Your task to perform on an android device: change keyboard looks Image 0: 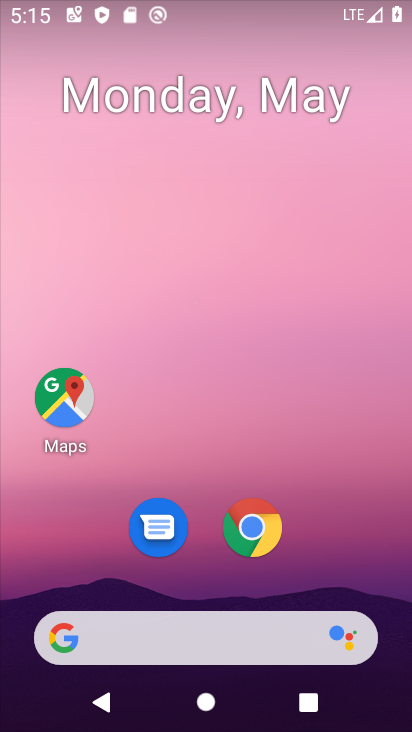
Step 0: click (408, 272)
Your task to perform on an android device: change keyboard looks Image 1: 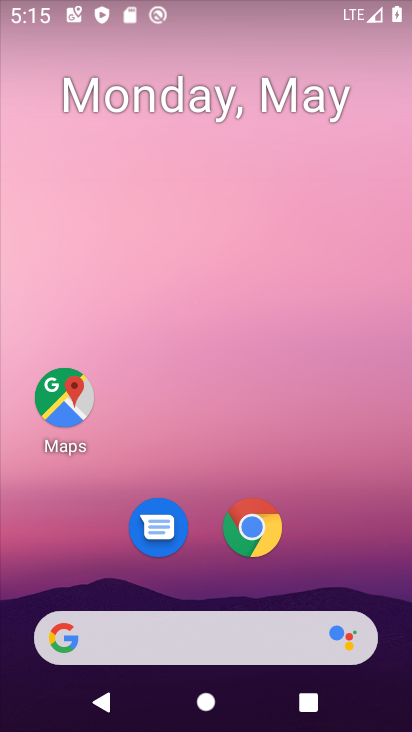
Step 1: drag from (401, 669) to (356, 171)
Your task to perform on an android device: change keyboard looks Image 2: 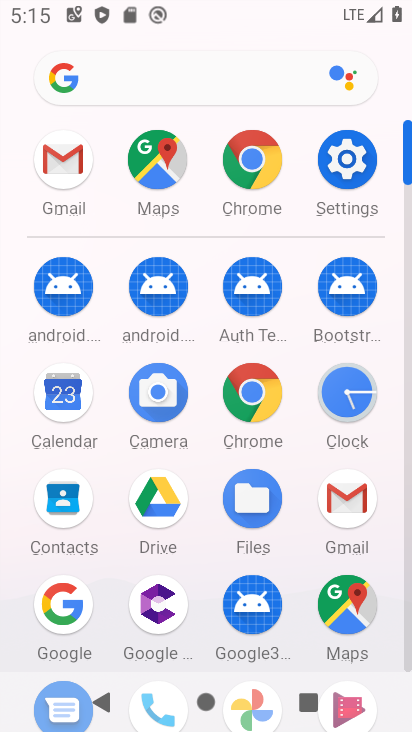
Step 2: click (346, 151)
Your task to perform on an android device: change keyboard looks Image 3: 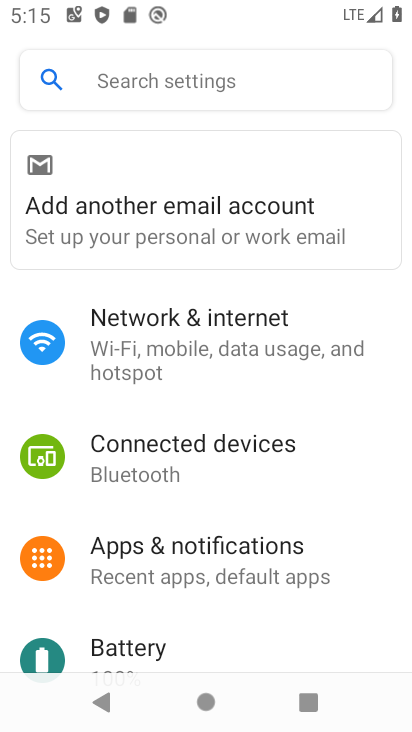
Step 3: drag from (340, 637) to (321, 296)
Your task to perform on an android device: change keyboard looks Image 4: 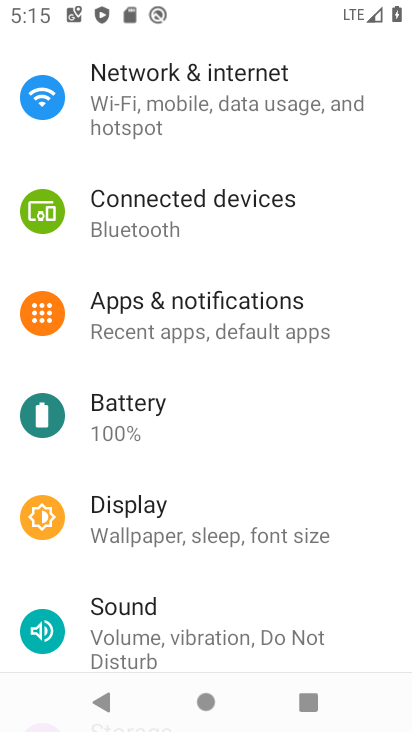
Step 4: drag from (355, 614) to (338, 275)
Your task to perform on an android device: change keyboard looks Image 5: 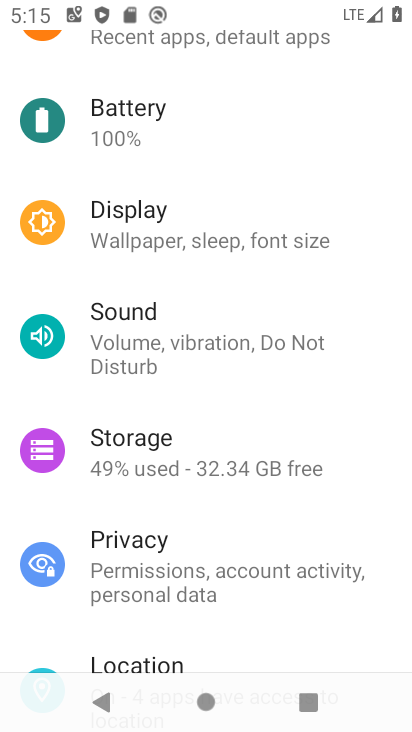
Step 5: drag from (325, 652) to (319, 221)
Your task to perform on an android device: change keyboard looks Image 6: 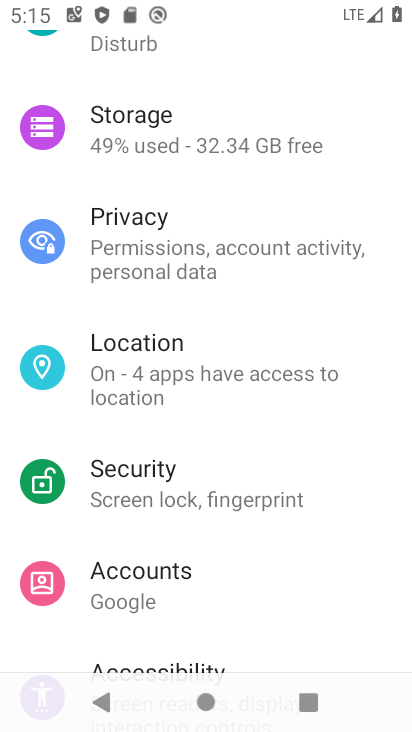
Step 6: drag from (293, 633) to (286, 318)
Your task to perform on an android device: change keyboard looks Image 7: 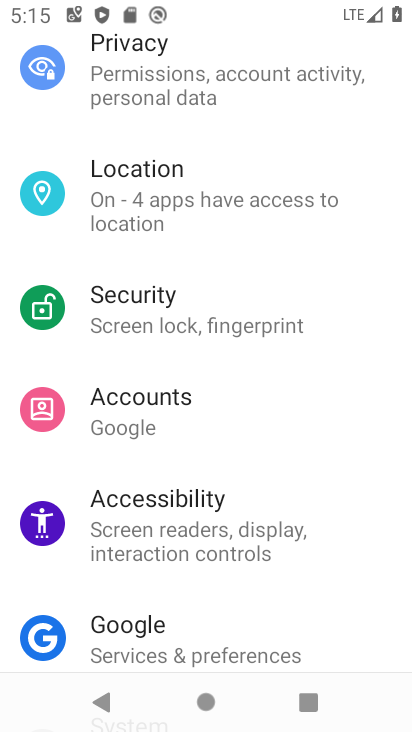
Step 7: drag from (310, 635) to (325, 348)
Your task to perform on an android device: change keyboard looks Image 8: 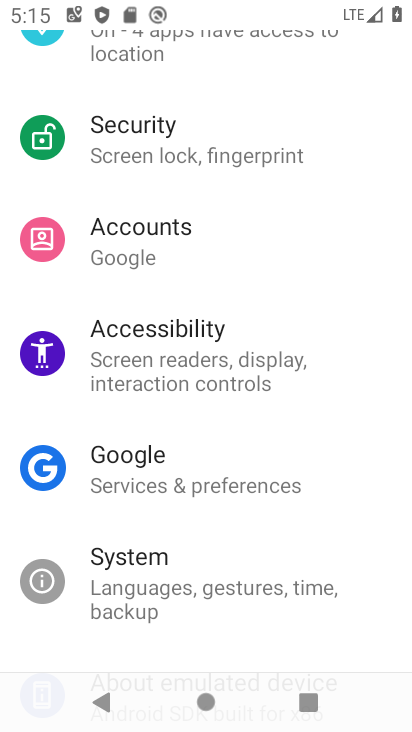
Step 8: click (133, 598)
Your task to perform on an android device: change keyboard looks Image 9: 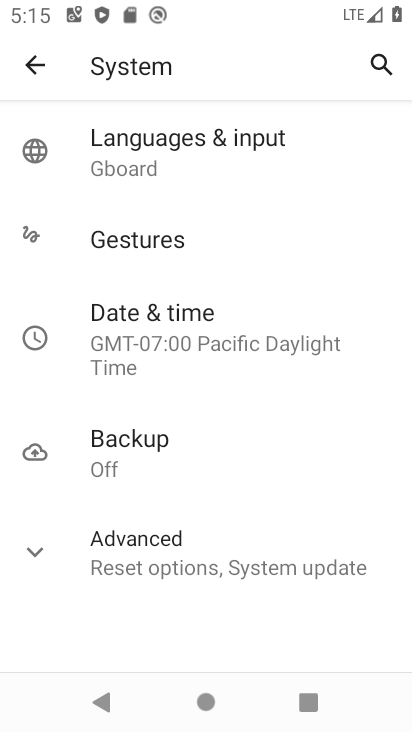
Step 9: click (150, 151)
Your task to perform on an android device: change keyboard looks Image 10: 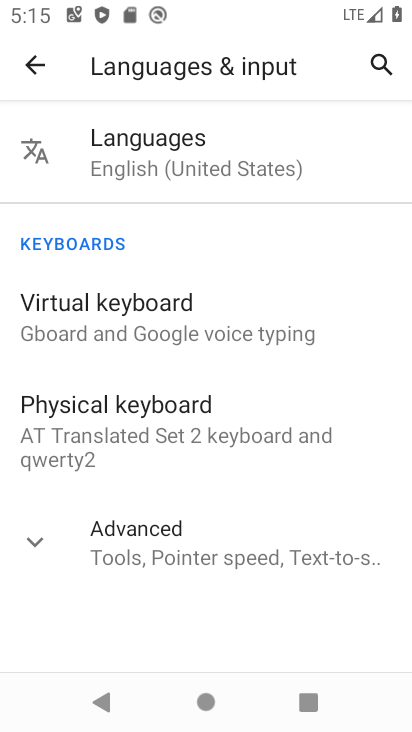
Step 10: click (102, 302)
Your task to perform on an android device: change keyboard looks Image 11: 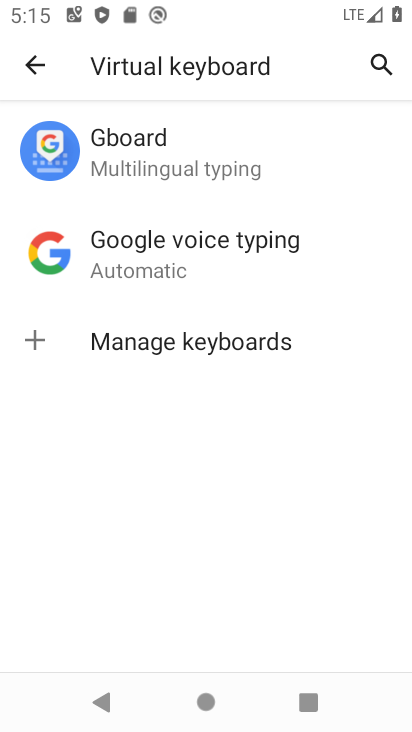
Step 11: click (130, 160)
Your task to perform on an android device: change keyboard looks Image 12: 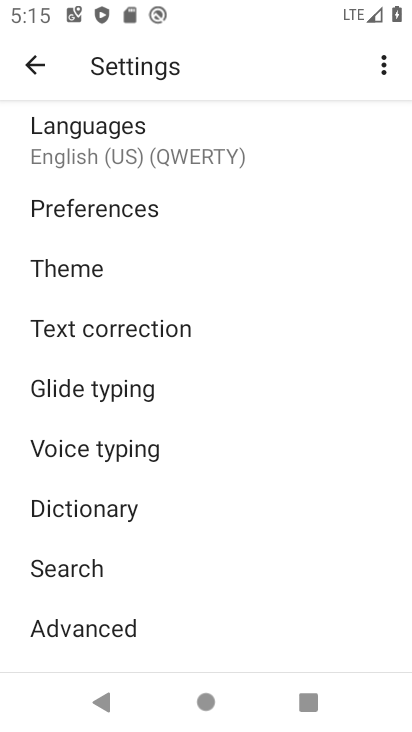
Step 12: click (52, 262)
Your task to perform on an android device: change keyboard looks Image 13: 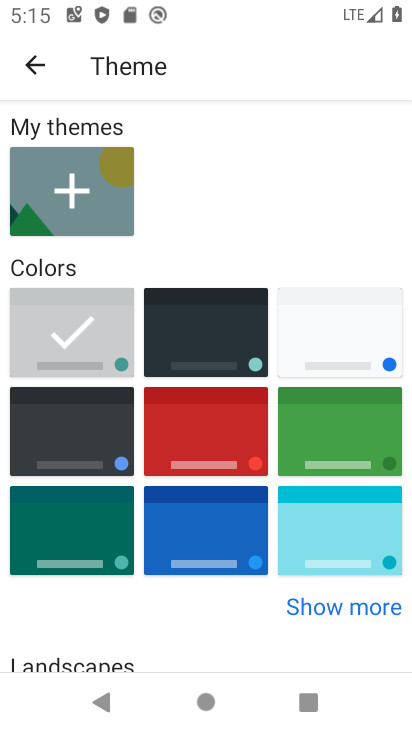
Step 13: click (303, 426)
Your task to perform on an android device: change keyboard looks Image 14: 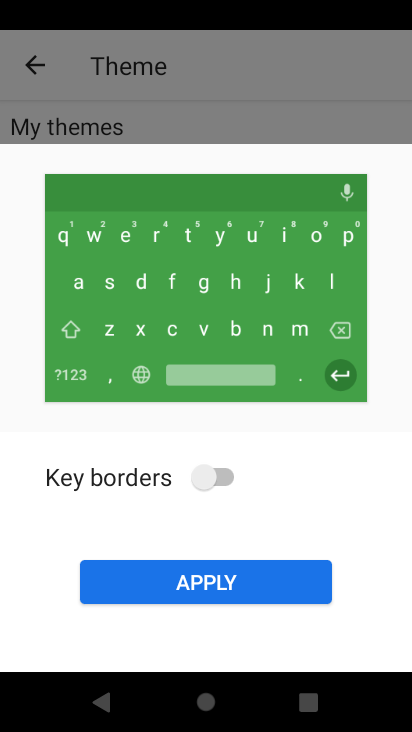
Step 14: click (230, 475)
Your task to perform on an android device: change keyboard looks Image 15: 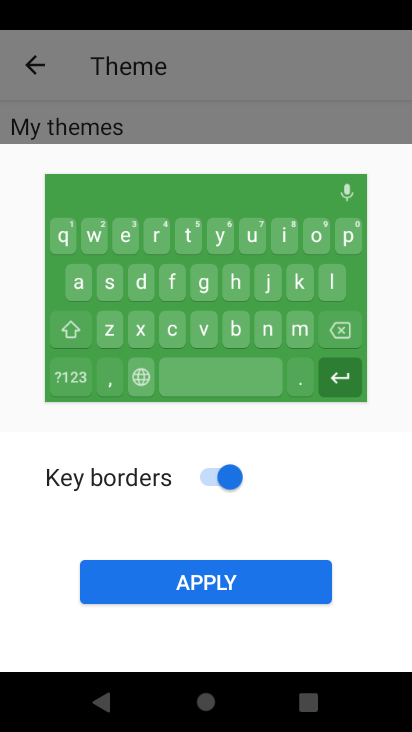
Step 15: click (260, 587)
Your task to perform on an android device: change keyboard looks Image 16: 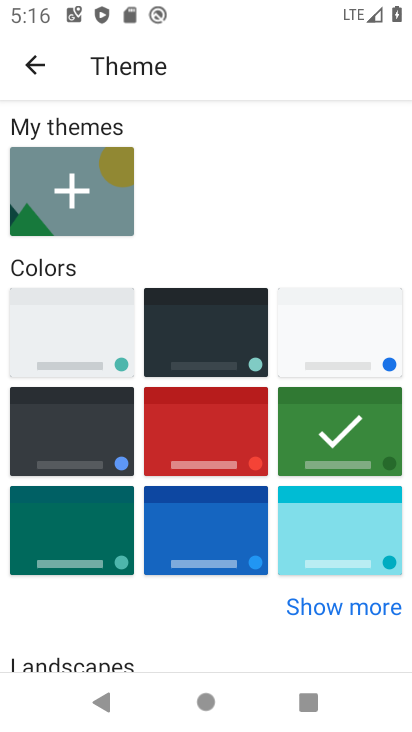
Step 16: task complete